Your task to perform on an android device: clear history in the chrome app Image 0: 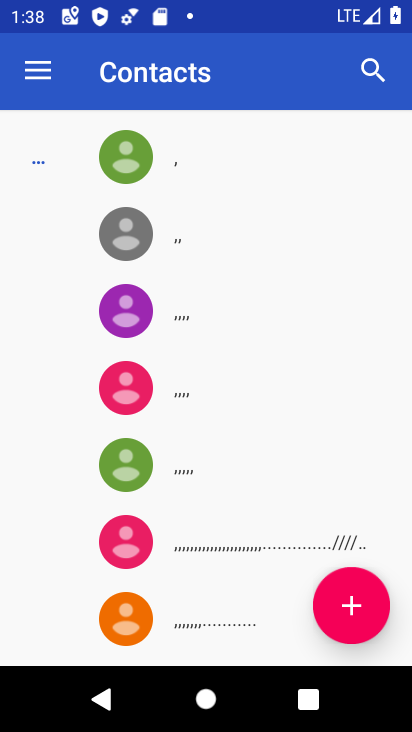
Step 0: press home button
Your task to perform on an android device: clear history in the chrome app Image 1: 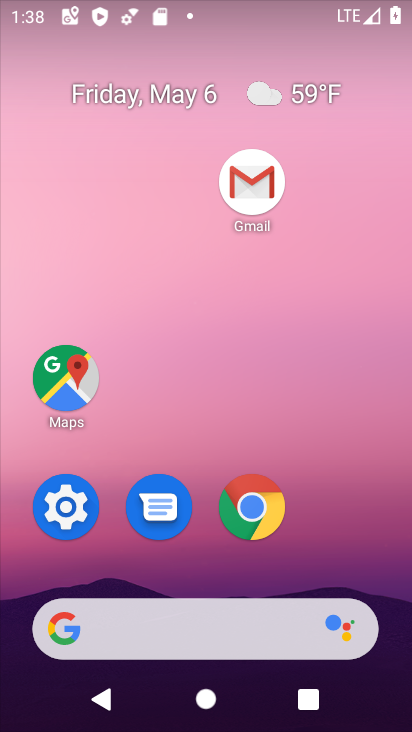
Step 1: click (249, 517)
Your task to perform on an android device: clear history in the chrome app Image 2: 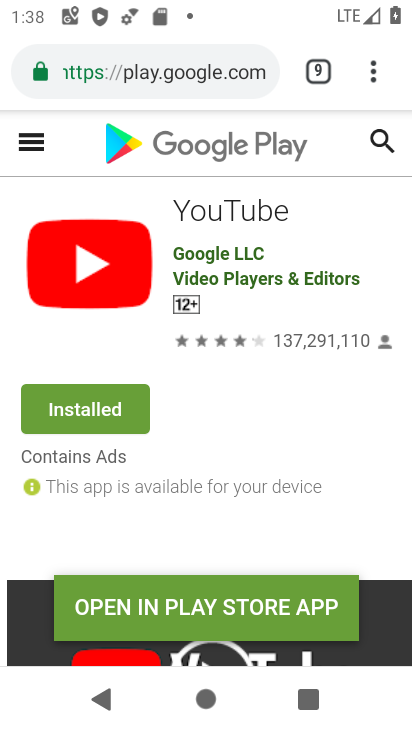
Step 2: click (374, 75)
Your task to perform on an android device: clear history in the chrome app Image 3: 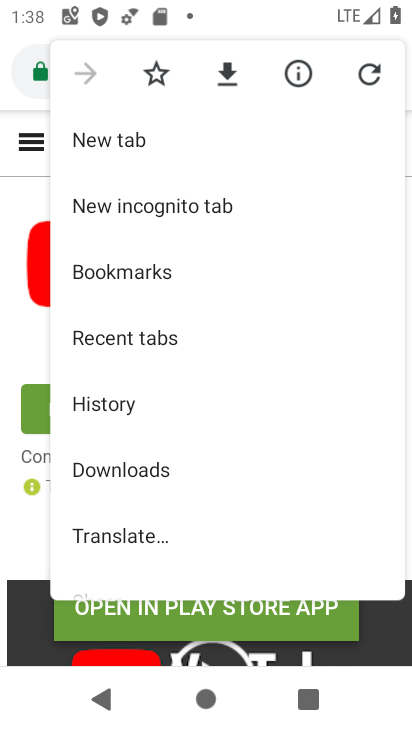
Step 3: click (109, 399)
Your task to perform on an android device: clear history in the chrome app Image 4: 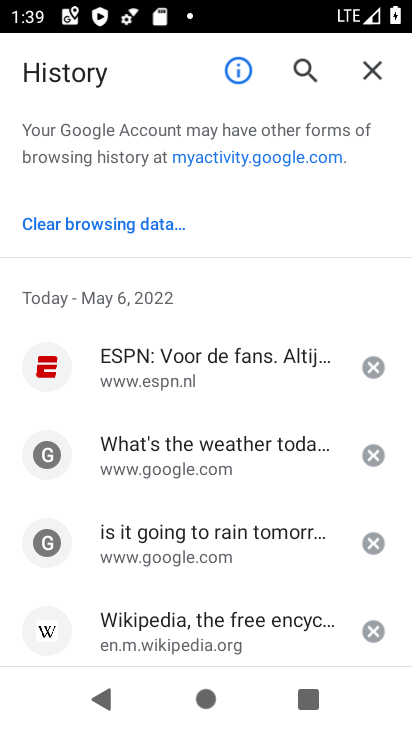
Step 4: click (110, 222)
Your task to perform on an android device: clear history in the chrome app Image 5: 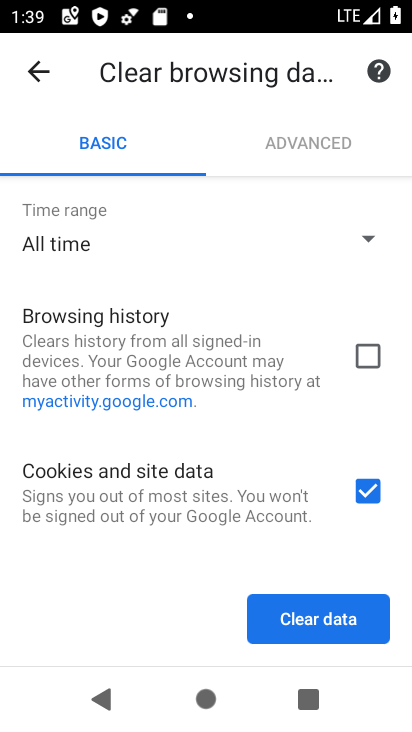
Step 5: click (363, 365)
Your task to perform on an android device: clear history in the chrome app Image 6: 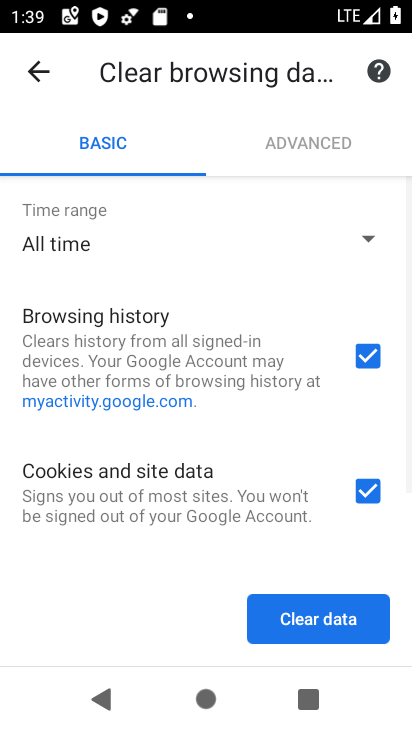
Step 6: click (359, 490)
Your task to perform on an android device: clear history in the chrome app Image 7: 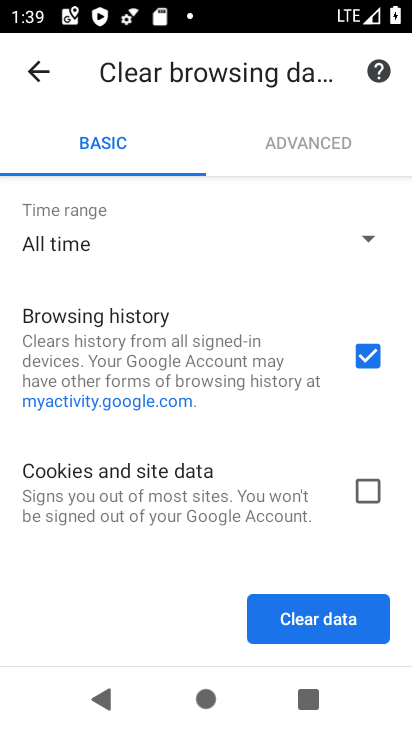
Step 7: click (367, 491)
Your task to perform on an android device: clear history in the chrome app Image 8: 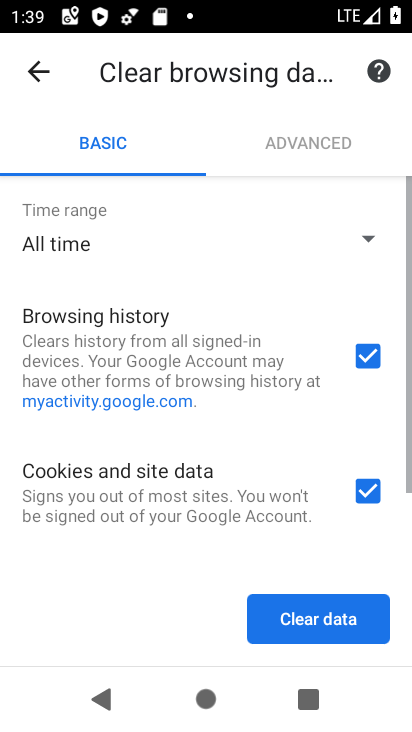
Step 8: click (298, 614)
Your task to perform on an android device: clear history in the chrome app Image 9: 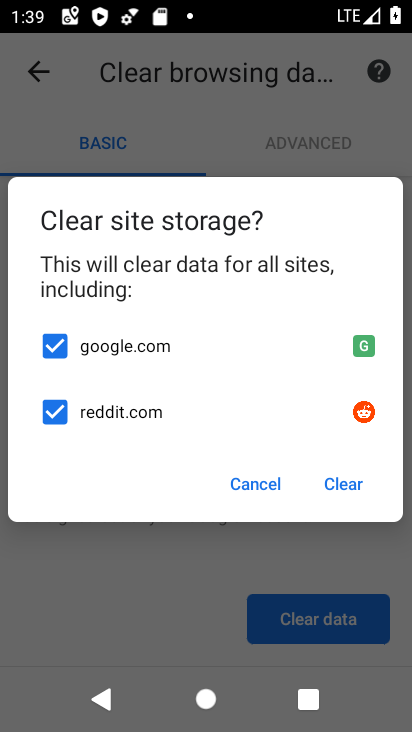
Step 9: click (346, 476)
Your task to perform on an android device: clear history in the chrome app Image 10: 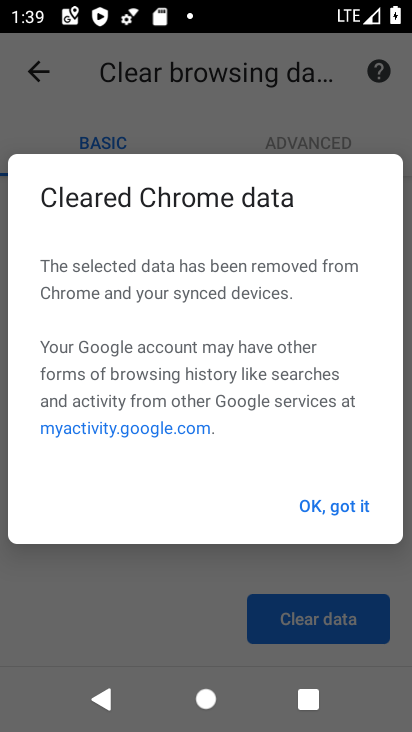
Step 10: click (340, 513)
Your task to perform on an android device: clear history in the chrome app Image 11: 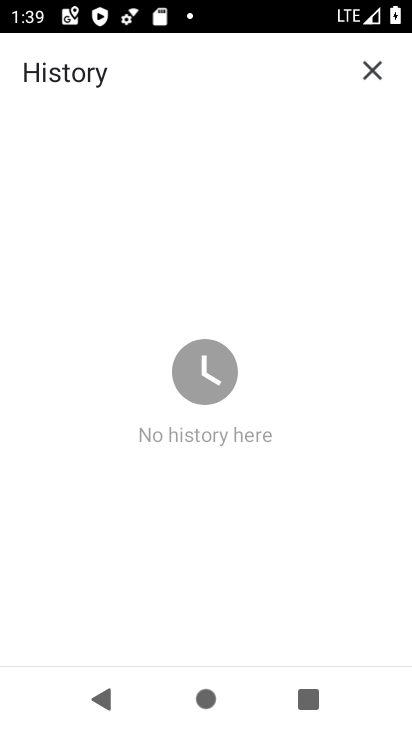
Step 11: task complete